Your task to perform on an android device: When is my next appointment? Image 0: 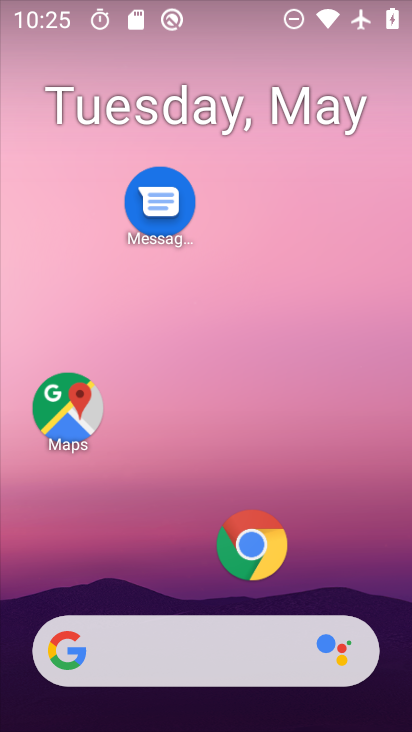
Step 0: drag from (156, 533) to (234, 157)
Your task to perform on an android device: When is my next appointment? Image 1: 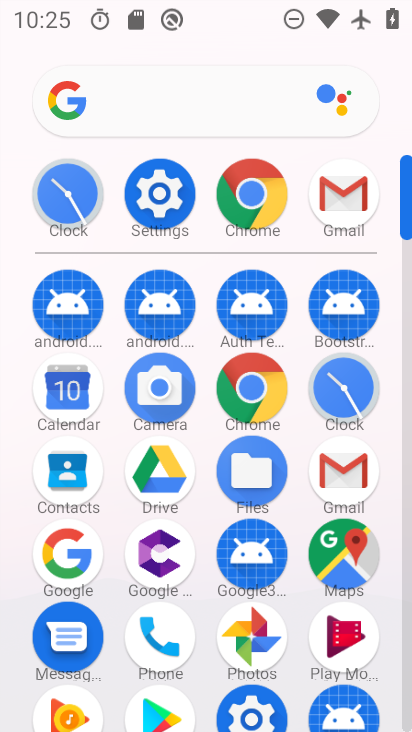
Step 1: click (73, 361)
Your task to perform on an android device: When is my next appointment? Image 2: 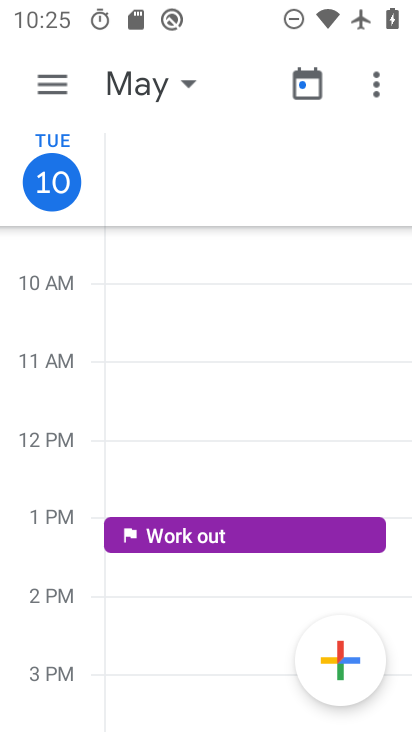
Step 2: click (184, 89)
Your task to perform on an android device: When is my next appointment? Image 3: 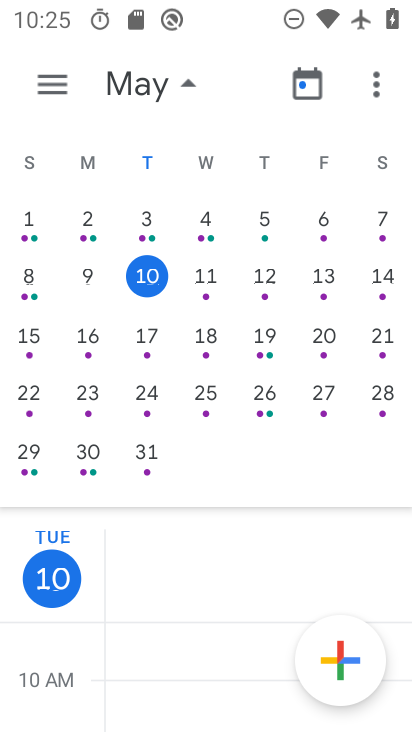
Step 3: click (168, 76)
Your task to perform on an android device: When is my next appointment? Image 4: 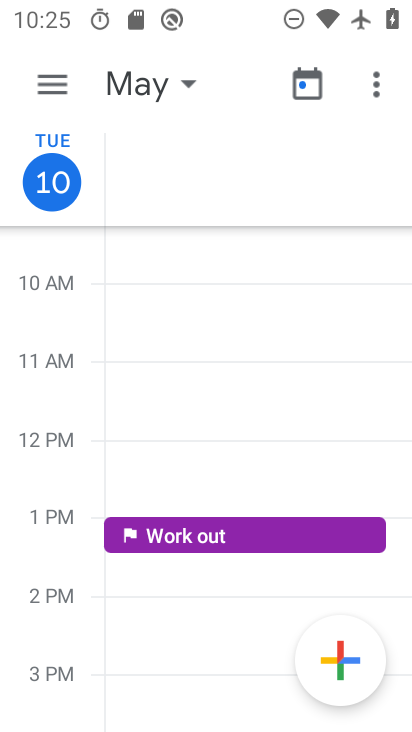
Step 4: click (64, 75)
Your task to perform on an android device: When is my next appointment? Image 5: 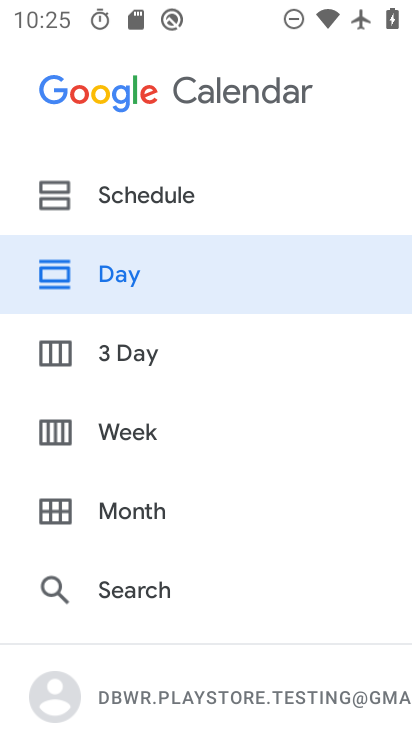
Step 5: drag from (207, 650) to (280, 334)
Your task to perform on an android device: When is my next appointment? Image 6: 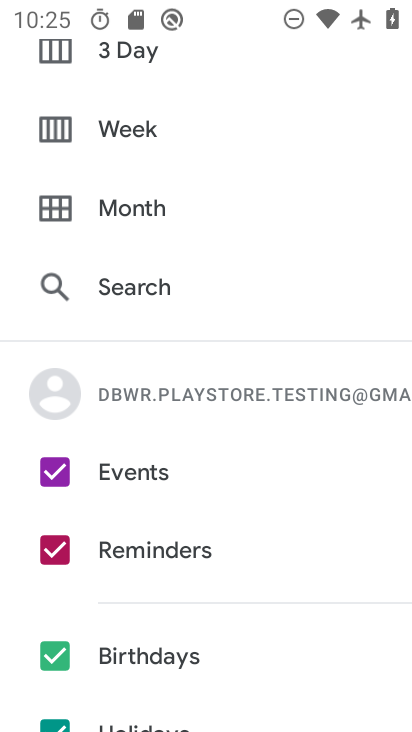
Step 6: drag from (199, 120) to (241, 508)
Your task to perform on an android device: When is my next appointment? Image 7: 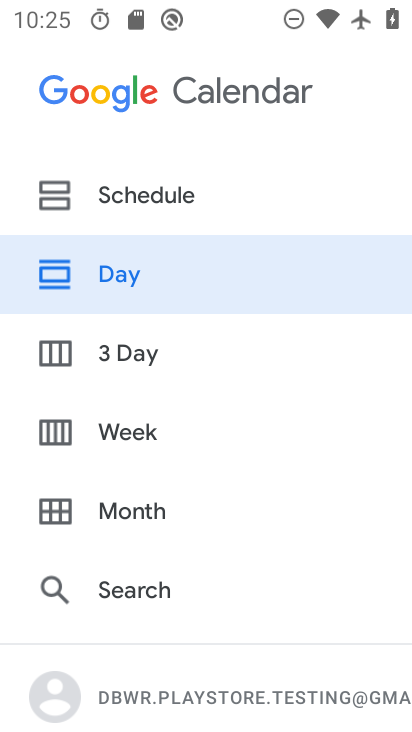
Step 7: drag from (166, 204) to (189, 498)
Your task to perform on an android device: When is my next appointment? Image 8: 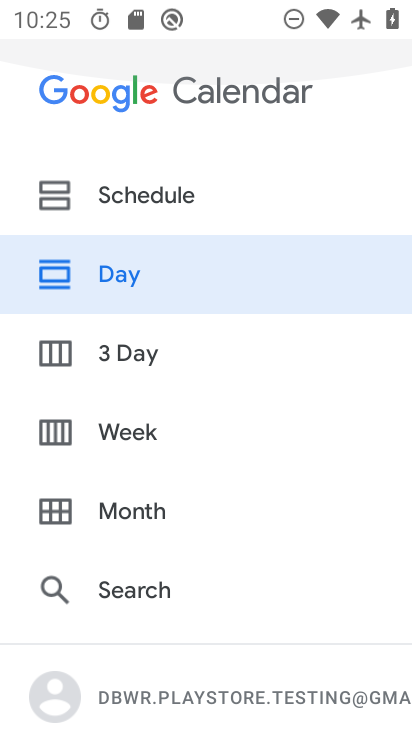
Step 8: drag from (171, 326) to (203, 656)
Your task to perform on an android device: When is my next appointment? Image 9: 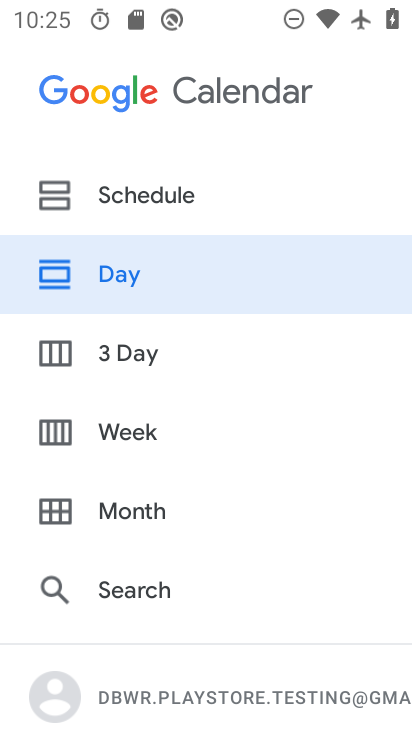
Step 9: press back button
Your task to perform on an android device: When is my next appointment? Image 10: 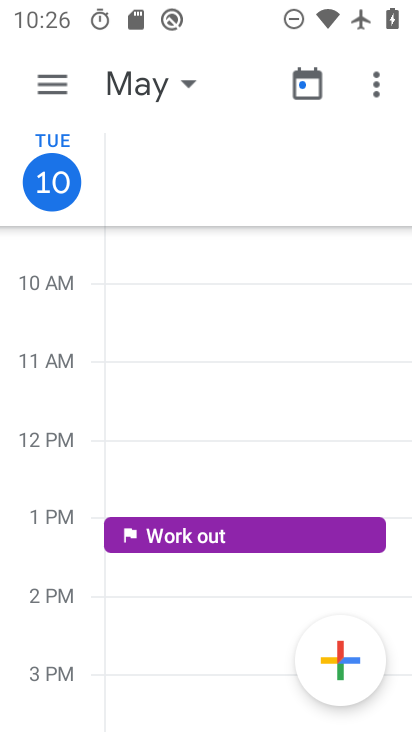
Step 10: drag from (242, 526) to (263, 224)
Your task to perform on an android device: When is my next appointment? Image 11: 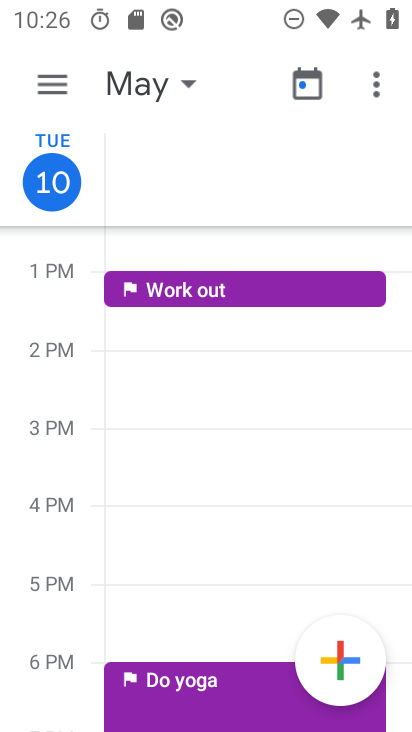
Step 11: drag from (195, 632) to (230, 376)
Your task to perform on an android device: When is my next appointment? Image 12: 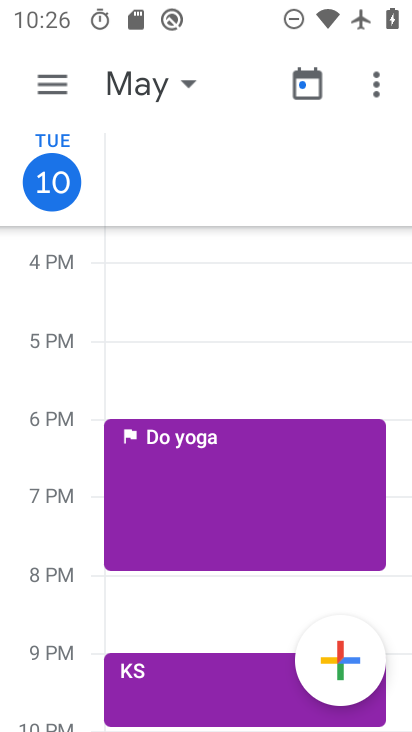
Step 12: drag from (233, 535) to (266, 233)
Your task to perform on an android device: When is my next appointment? Image 13: 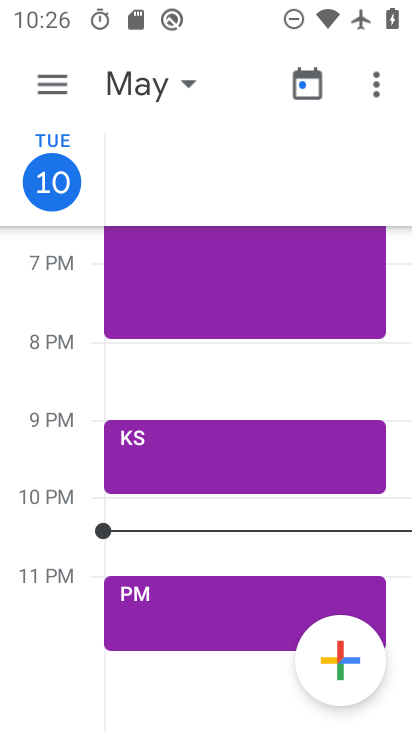
Step 13: click (66, 84)
Your task to perform on an android device: When is my next appointment? Image 14: 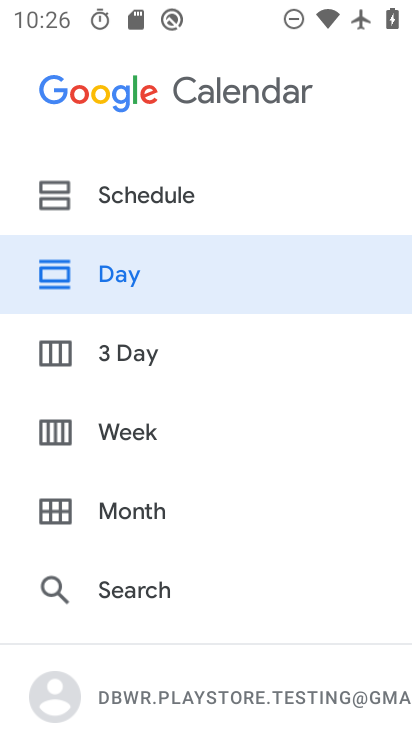
Step 14: click (155, 208)
Your task to perform on an android device: When is my next appointment? Image 15: 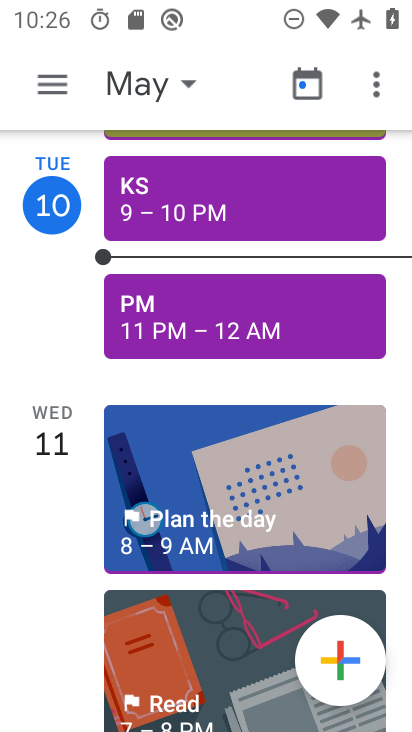
Step 15: task complete